Your task to perform on an android device: open chrome and create a bookmark for the current page Image 0: 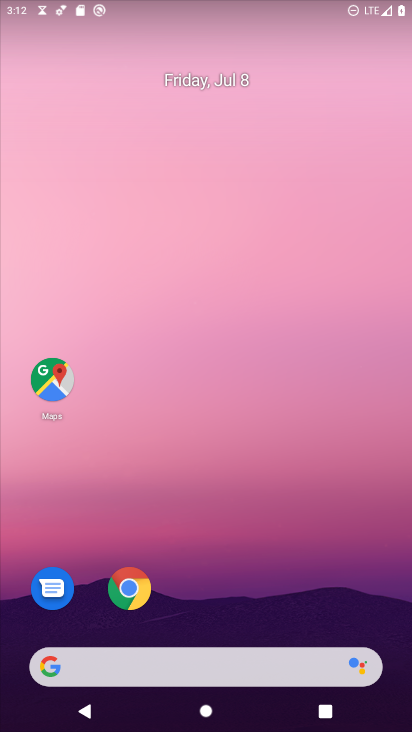
Step 0: click (129, 594)
Your task to perform on an android device: open chrome and create a bookmark for the current page Image 1: 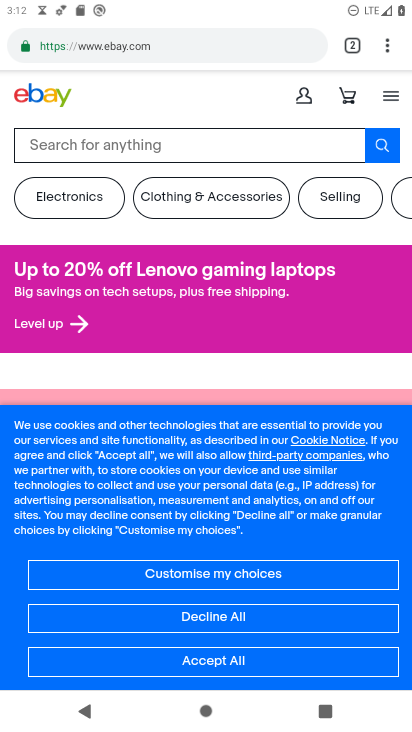
Step 1: click (383, 46)
Your task to perform on an android device: open chrome and create a bookmark for the current page Image 2: 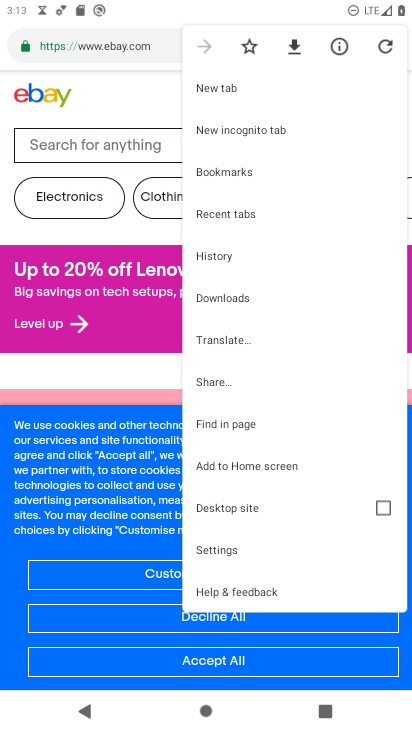
Step 2: click (252, 50)
Your task to perform on an android device: open chrome and create a bookmark for the current page Image 3: 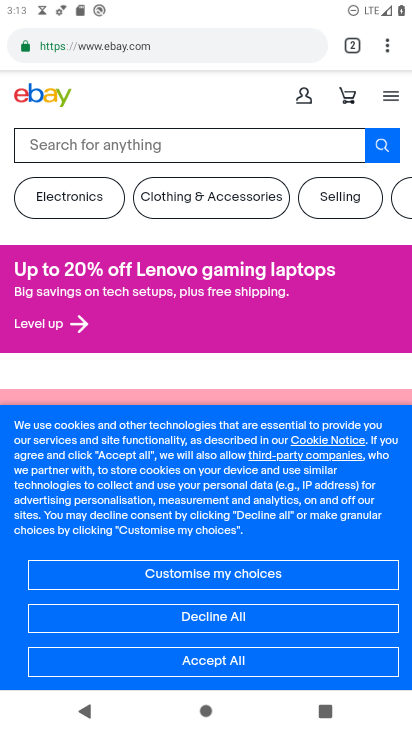
Step 3: task complete